Your task to perform on an android device: turn on translation in the chrome app Image 0: 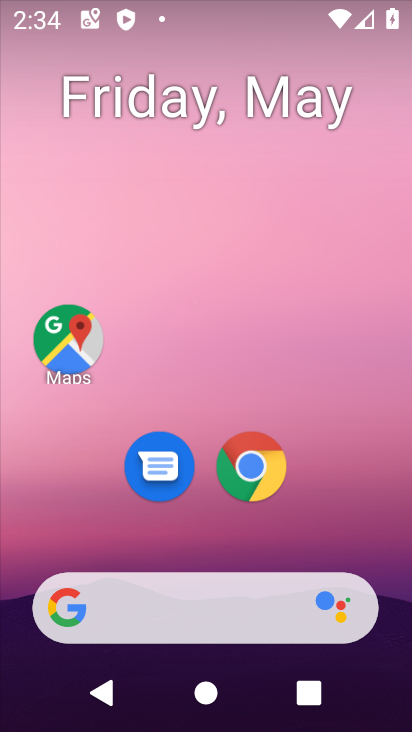
Step 0: click (248, 458)
Your task to perform on an android device: turn on translation in the chrome app Image 1: 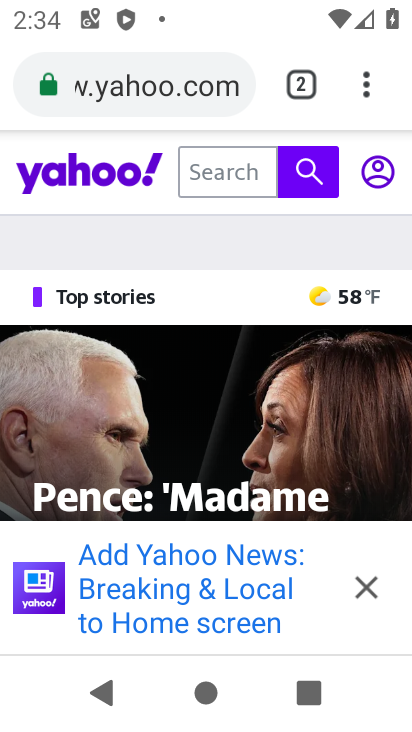
Step 1: drag from (366, 85) to (111, 519)
Your task to perform on an android device: turn on translation in the chrome app Image 2: 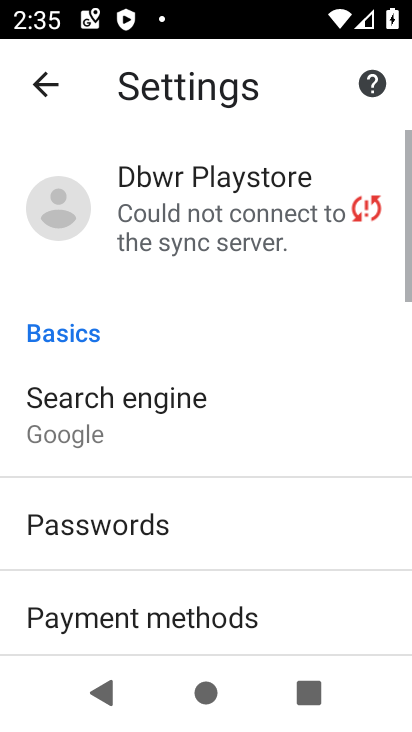
Step 2: drag from (236, 592) to (386, 115)
Your task to perform on an android device: turn on translation in the chrome app Image 3: 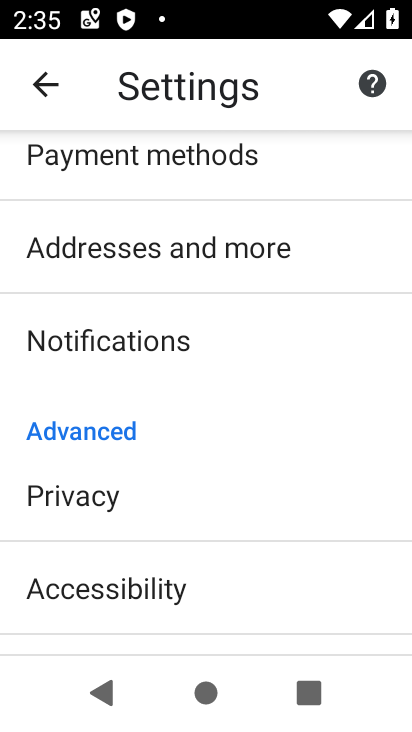
Step 3: drag from (164, 626) to (288, 268)
Your task to perform on an android device: turn on translation in the chrome app Image 4: 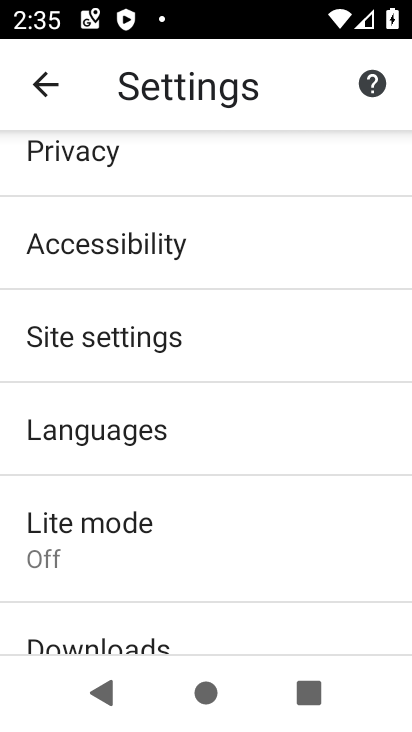
Step 4: click (112, 430)
Your task to perform on an android device: turn on translation in the chrome app Image 5: 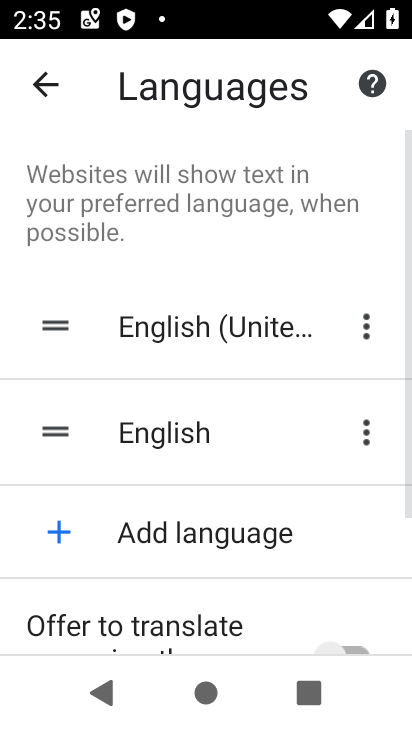
Step 5: drag from (174, 586) to (295, 232)
Your task to perform on an android device: turn on translation in the chrome app Image 6: 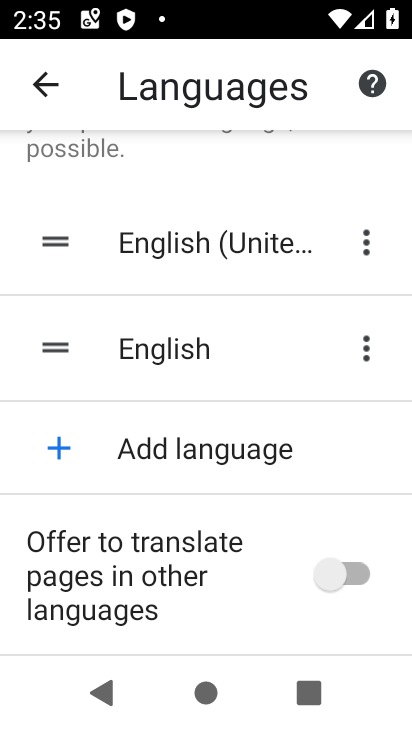
Step 6: click (342, 566)
Your task to perform on an android device: turn on translation in the chrome app Image 7: 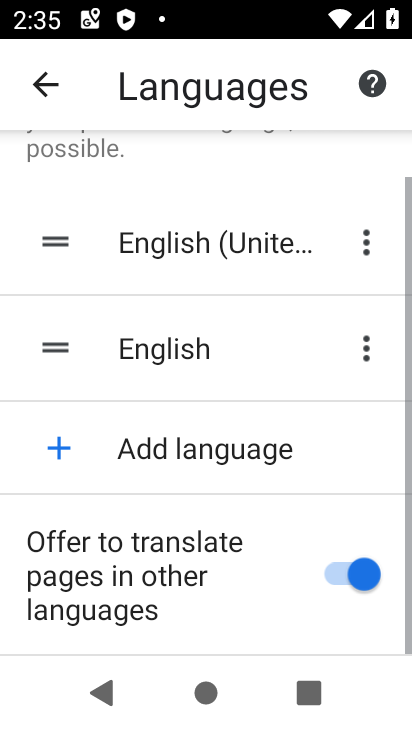
Step 7: task complete